Your task to perform on an android device: install app "eBay: The shopping marketplace" Image 0: 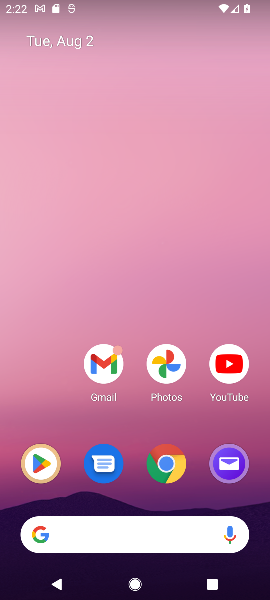
Step 0: click (39, 461)
Your task to perform on an android device: install app "eBay: The shopping marketplace" Image 1: 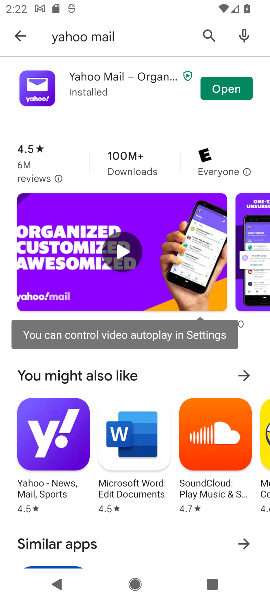
Step 1: press home button
Your task to perform on an android device: install app "eBay: The shopping marketplace" Image 2: 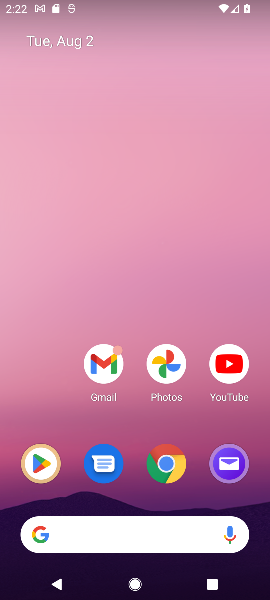
Step 2: click (43, 465)
Your task to perform on an android device: install app "eBay: The shopping marketplace" Image 3: 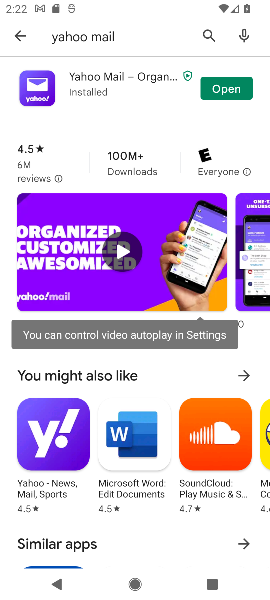
Step 3: click (206, 30)
Your task to perform on an android device: install app "eBay: The shopping marketplace" Image 4: 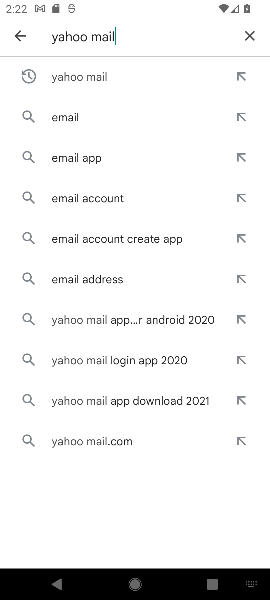
Step 4: click (248, 32)
Your task to perform on an android device: install app "eBay: The shopping marketplace" Image 5: 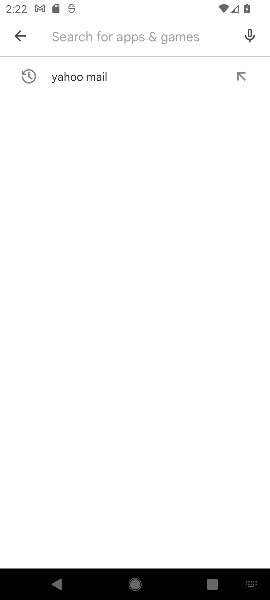
Step 5: type "eBay: The shopping marketplace"
Your task to perform on an android device: install app "eBay: The shopping marketplace" Image 6: 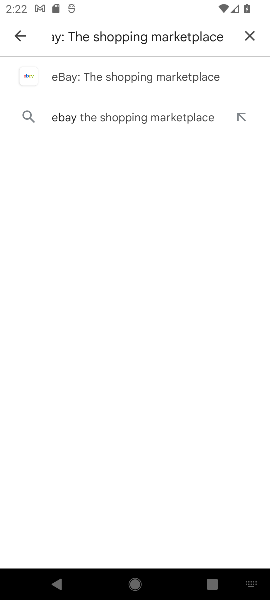
Step 6: click (106, 78)
Your task to perform on an android device: install app "eBay: The shopping marketplace" Image 7: 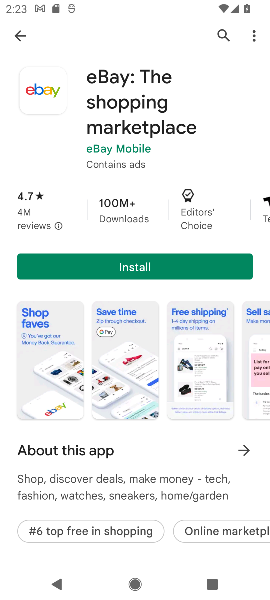
Step 7: click (153, 266)
Your task to perform on an android device: install app "eBay: The shopping marketplace" Image 8: 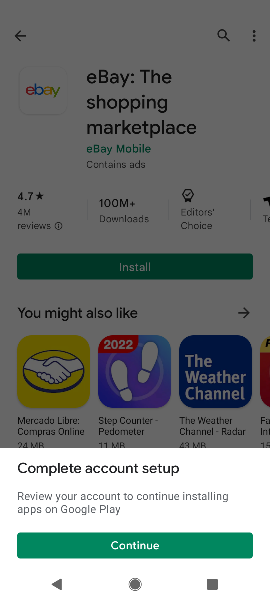
Step 8: click (142, 542)
Your task to perform on an android device: install app "eBay: The shopping marketplace" Image 9: 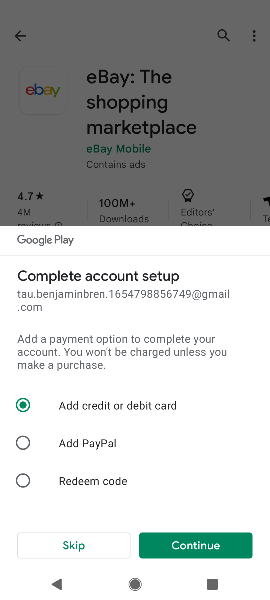
Step 9: click (92, 543)
Your task to perform on an android device: install app "eBay: The shopping marketplace" Image 10: 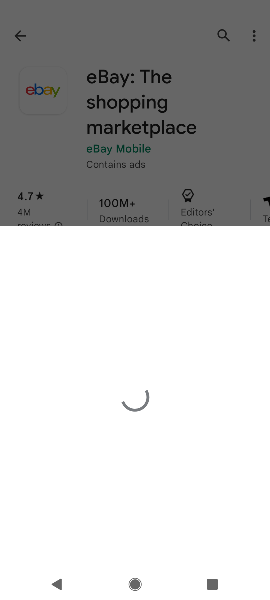
Step 10: click (191, 551)
Your task to perform on an android device: install app "eBay: The shopping marketplace" Image 11: 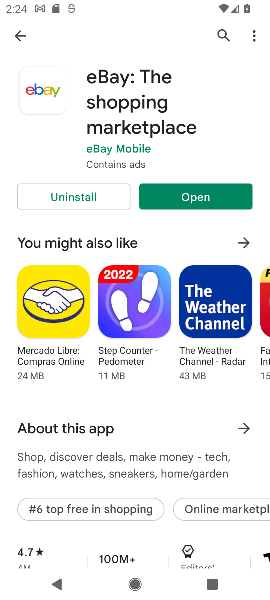
Step 11: task complete